Your task to perform on an android device: Open Google Chrome and click the shortcut for Amazon.com Image 0: 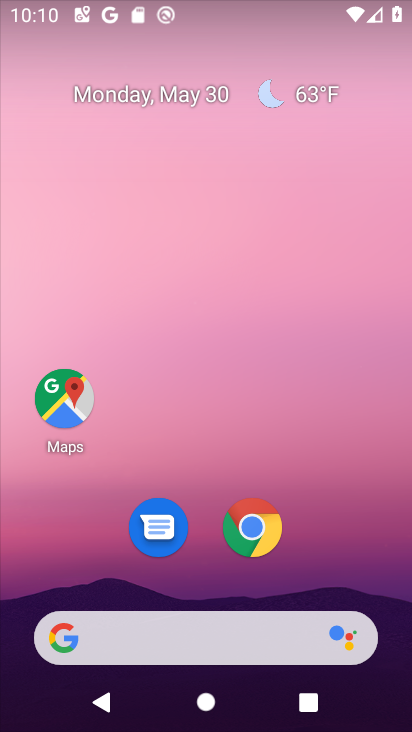
Step 0: click (243, 518)
Your task to perform on an android device: Open Google Chrome and click the shortcut for Amazon.com Image 1: 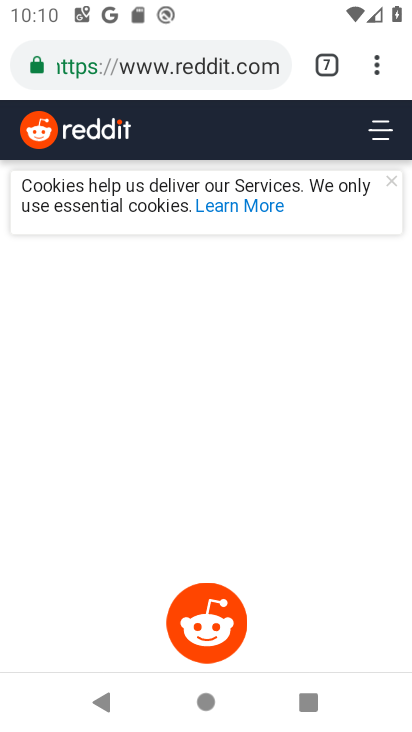
Step 1: click (376, 61)
Your task to perform on an android device: Open Google Chrome and click the shortcut for Amazon.com Image 2: 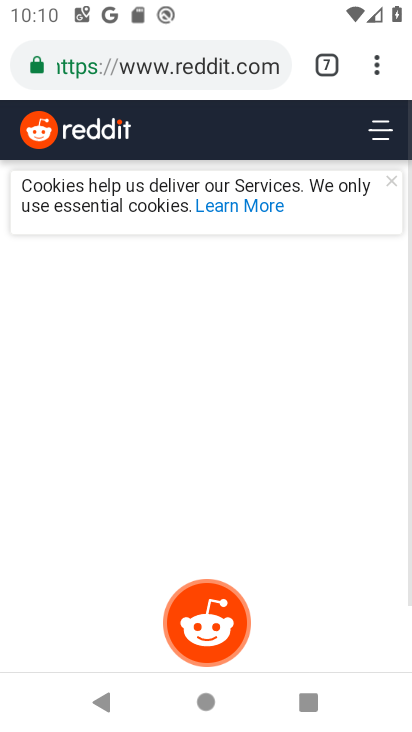
Step 2: click (377, 54)
Your task to perform on an android device: Open Google Chrome and click the shortcut for Amazon.com Image 3: 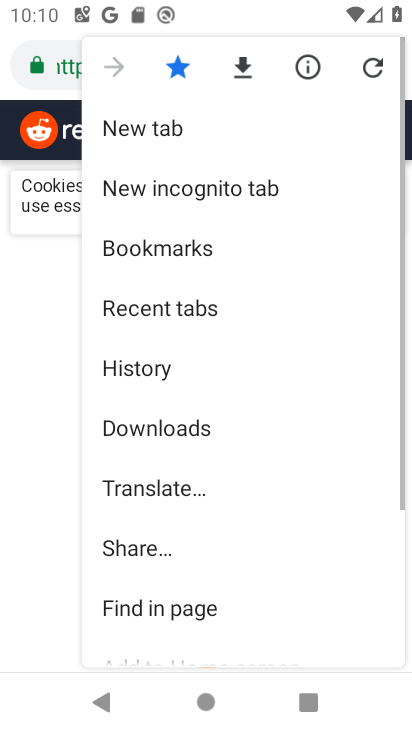
Step 3: click (159, 122)
Your task to perform on an android device: Open Google Chrome and click the shortcut for Amazon.com Image 4: 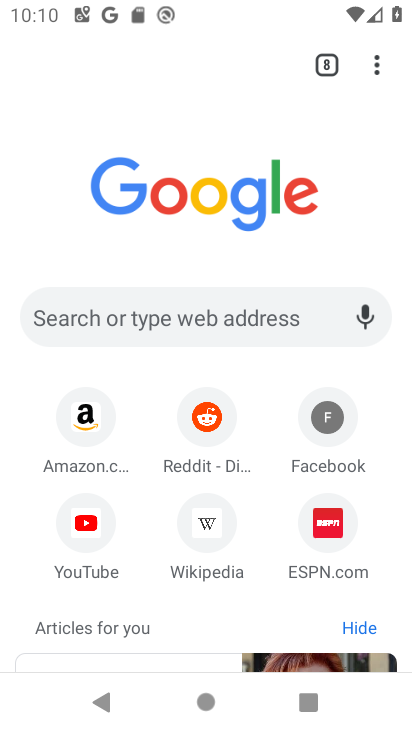
Step 4: click (78, 408)
Your task to perform on an android device: Open Google Chrome and click the shortcut for Amazon.com Image 5: 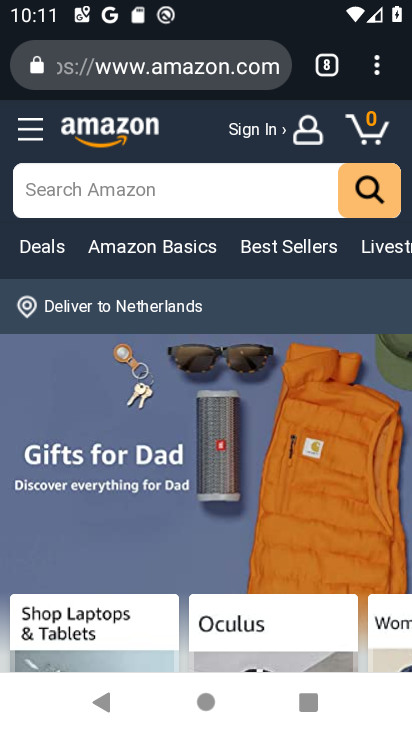
Step 5: task complete